Your task to perform on an android device: change keyboard looks Image 0: 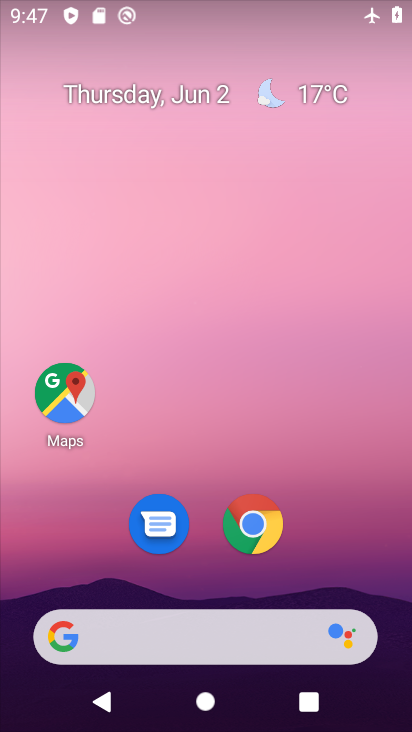
Step 0: drag from (323, 531) to (277, 18)
Your task to perform on an android device: change keyboard looks Image 1: 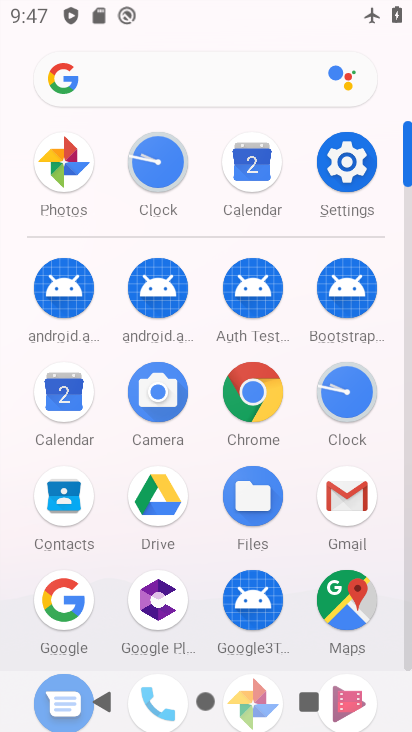
Step 1: click (341, 163)
Your task to perform on an android device: change keyboard looks Image 2: 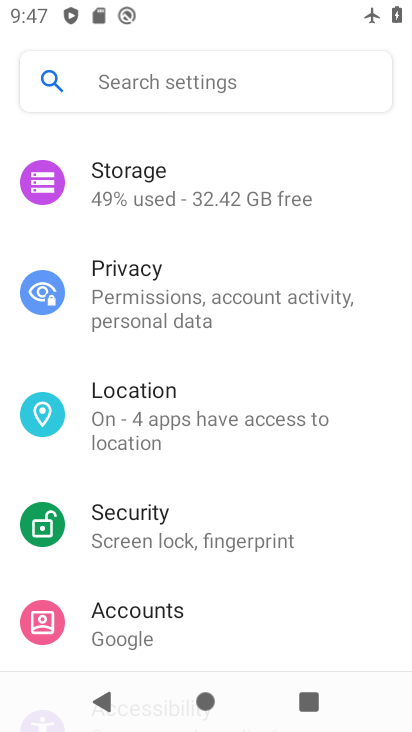
Step 2: drag from (249, 504) to (236, 60)
Your task to perform on an android device: change keyboard looks Image 3: 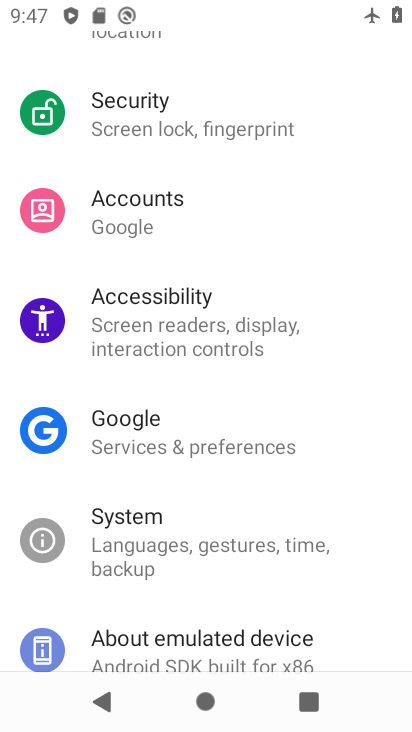
Step 3: click (238, 538)
Your task to perform on an android device: change keyboard looks Image 4: 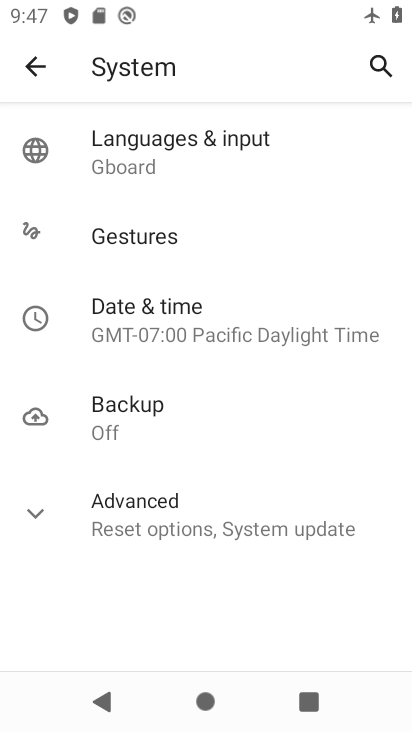
Step 4: click (212, 152)
Your task to perform on an android device: change keyboard looks Image 5: 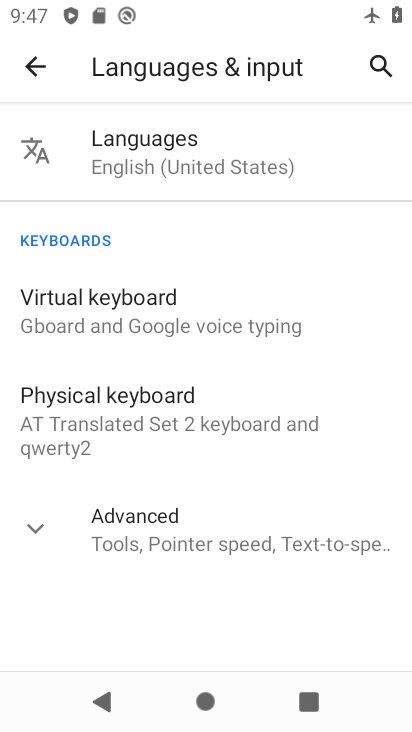
Step 5: click (175, 306)
Your task to perform on an android device: change keyboard looks Image 6: 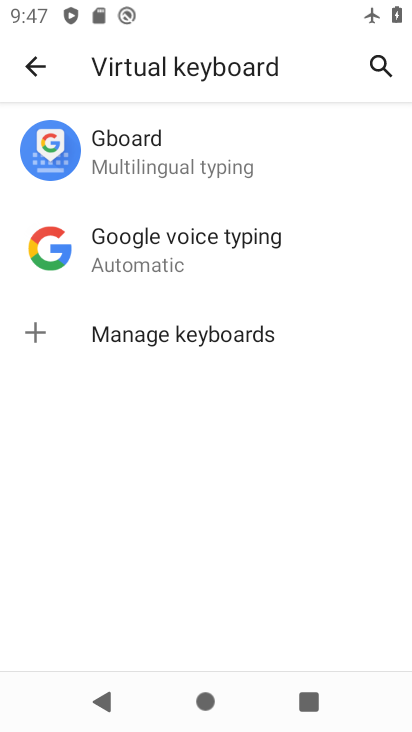
Step 6: click (175, 162)
Your task to perform on an android device: change keyboard looks Image 7: 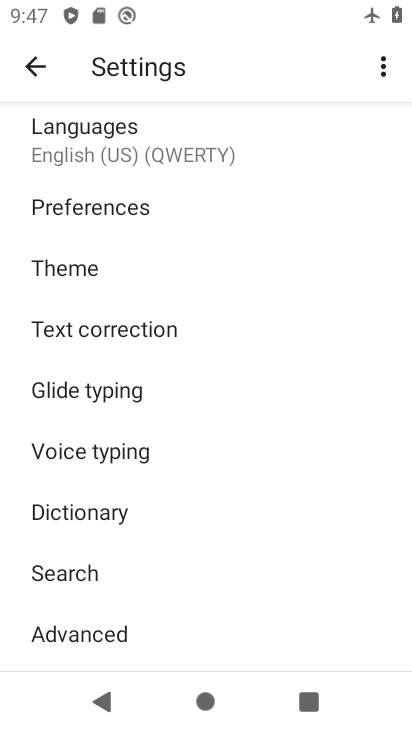
Step 7: click (112, 275)
Your task to perform on an android device: change keyboard looks Image 8: 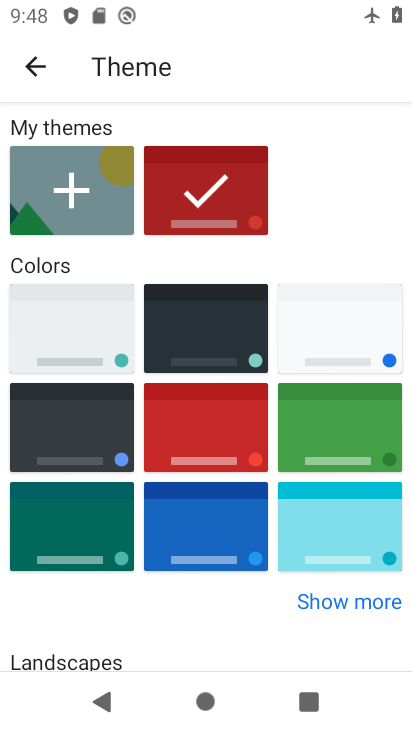
Step 8: click (103, 311)
Your task to perform on an android device: change keyboard looks Image 9: 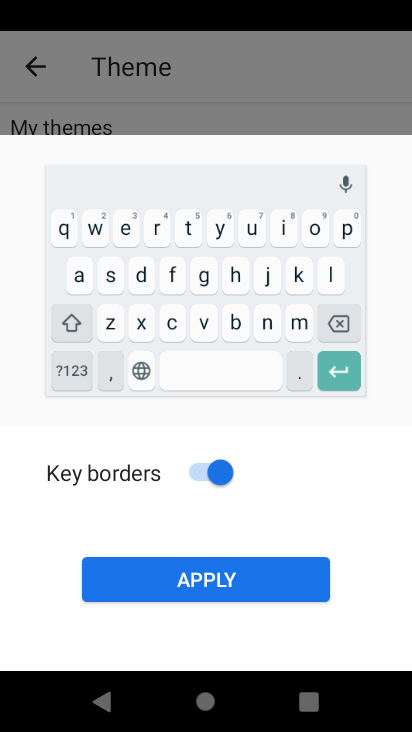
Step 9: click (207, 581)
Your task to perform on an android device: change keyboard looks Image 10: 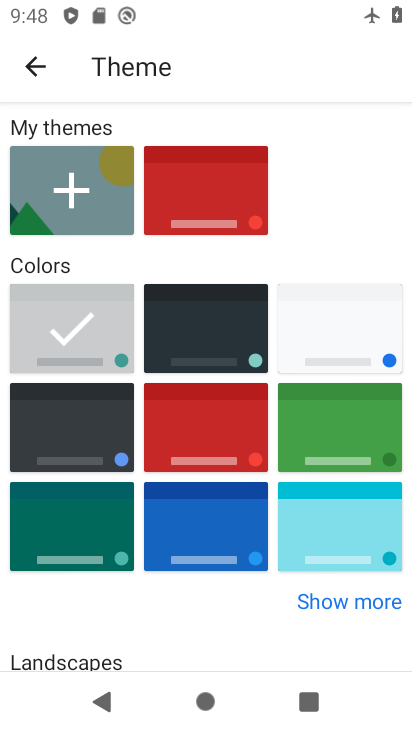
Step 10: task complete